Your task to perform on an android device: Search for a new hair product Image 0: 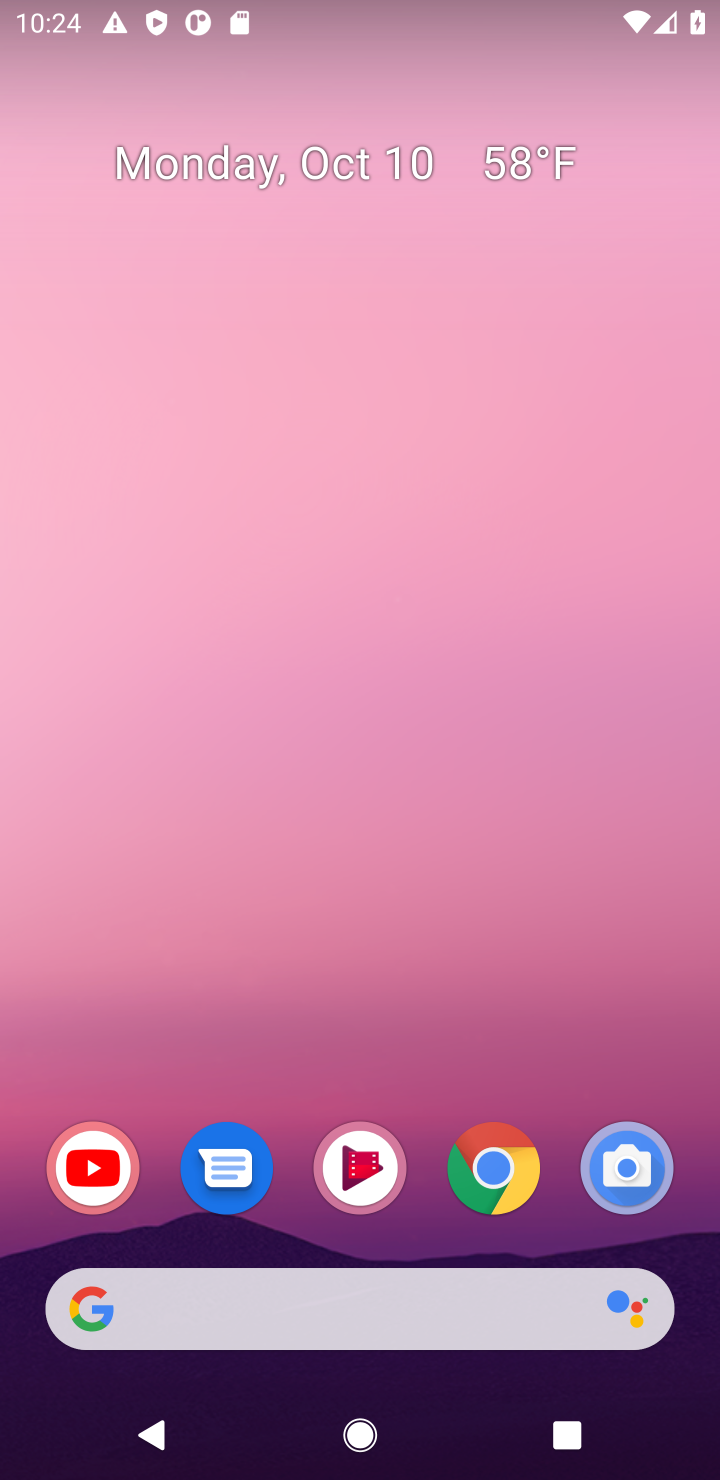
Step 0: click (344, 1324)
Your task to perform on an android device: Search for a new hair product Image 1: 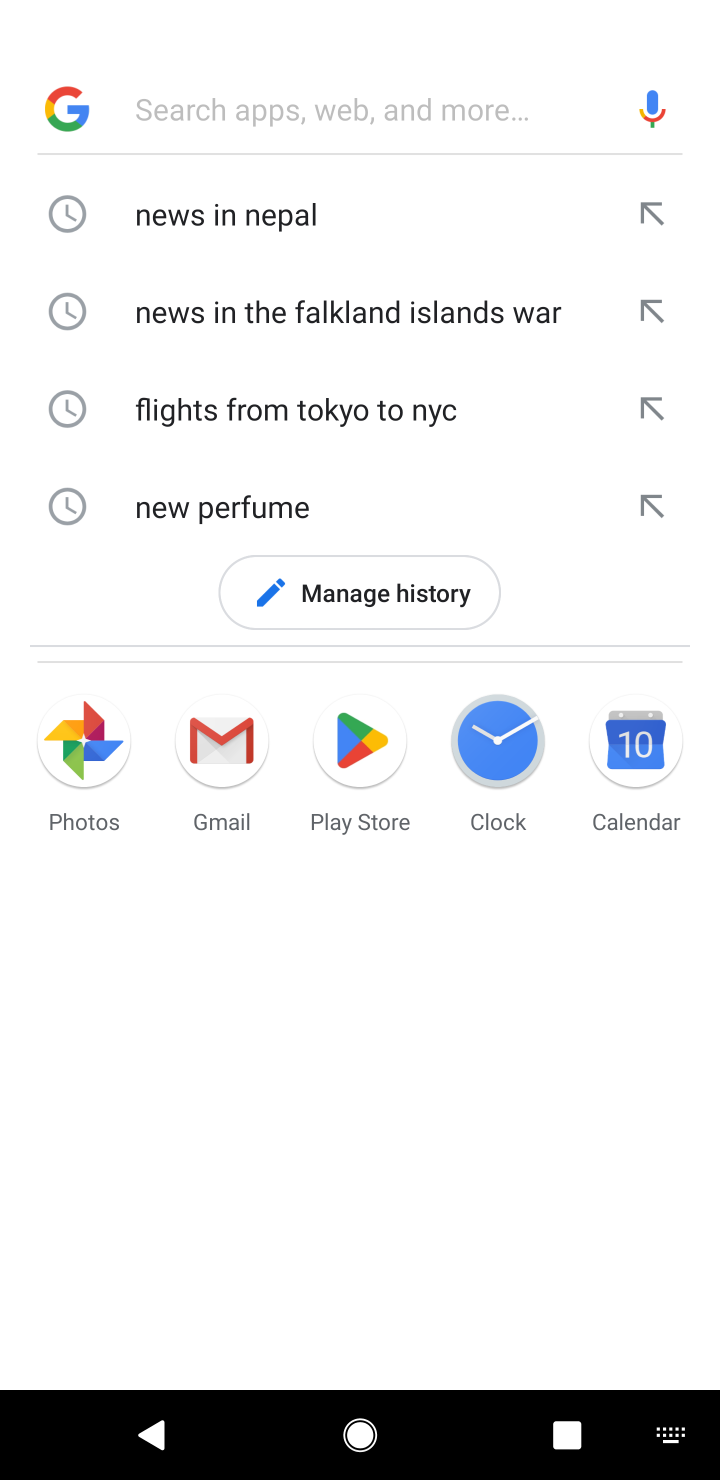
Step 1: type "a new hair product"
Your task to perform on an android device: Search for a new hair product Image 2: 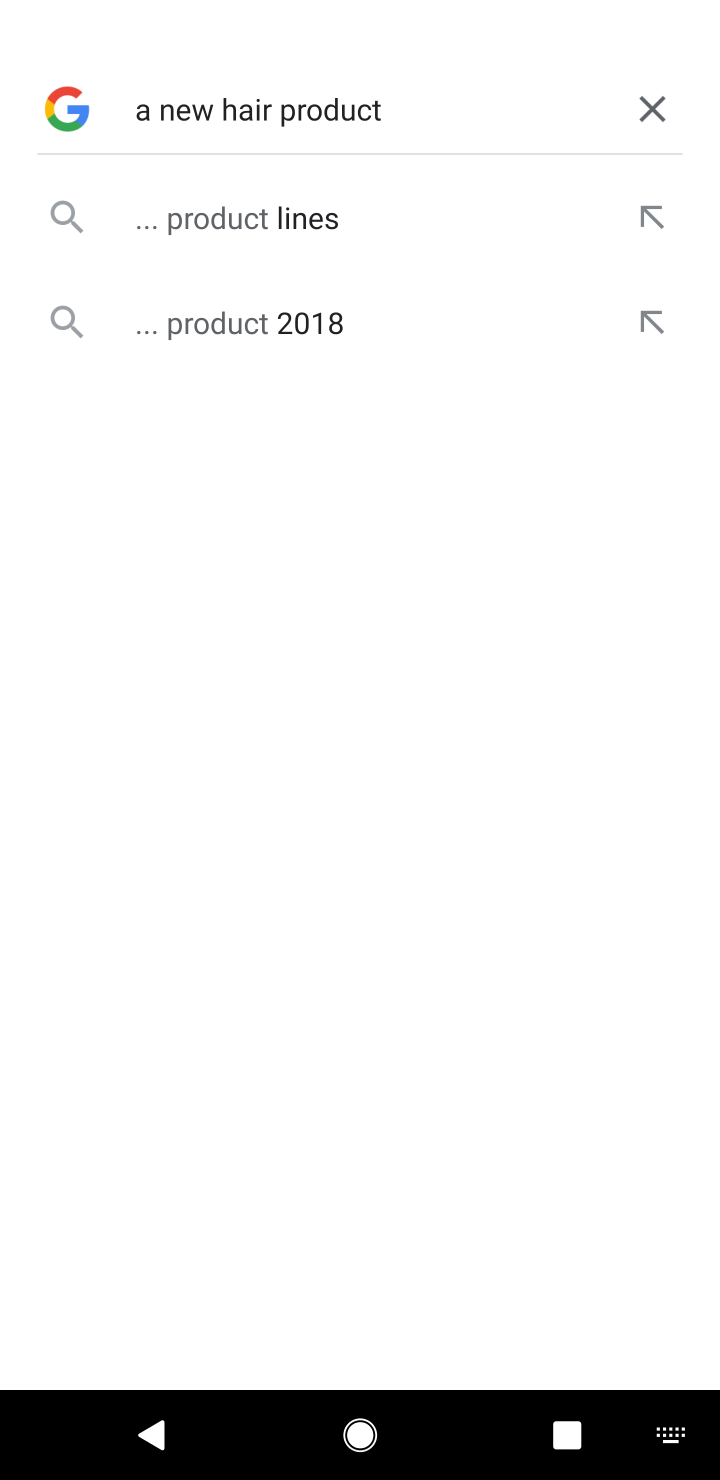
Step 2: type ""
Your task to perform on an android device: Search for a new hair product Image 3: 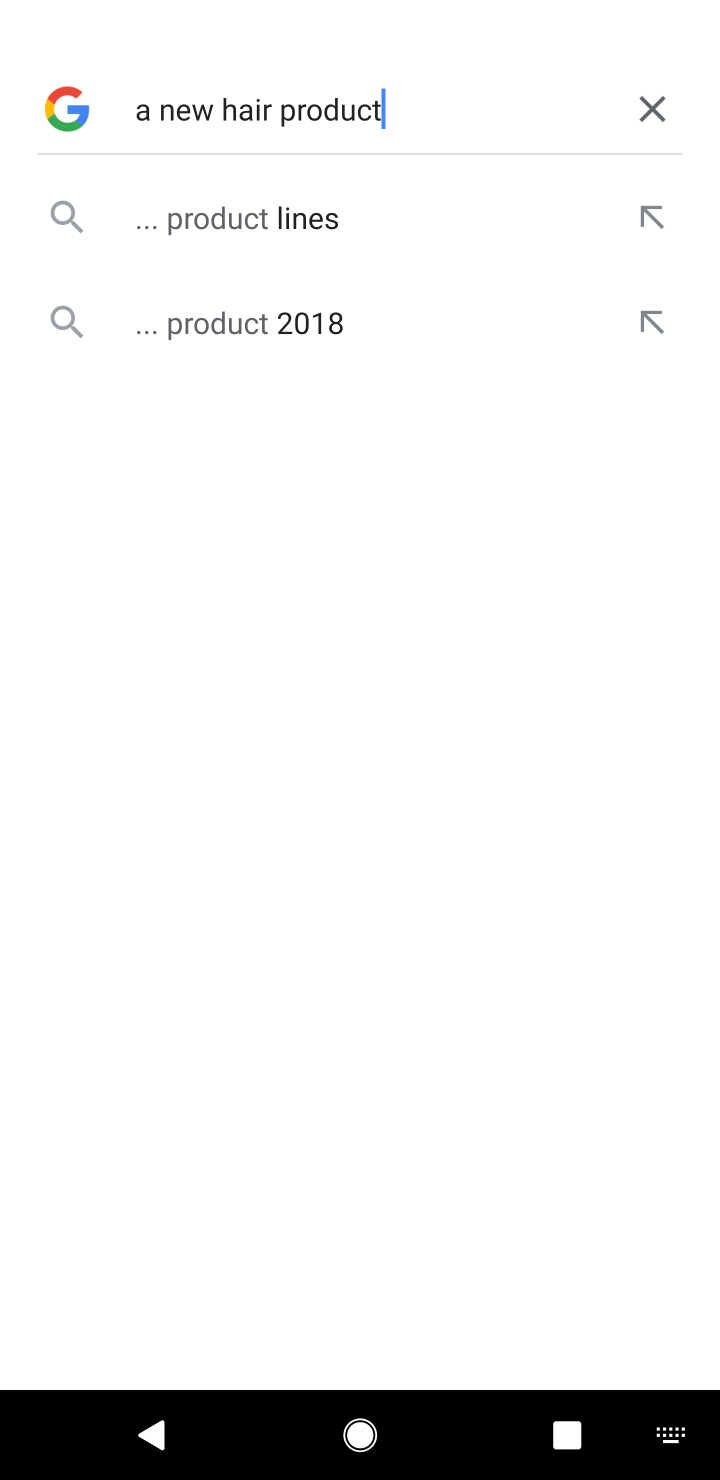
Step 3: click (249, 211)
Your task to perform on an android device: Search for a new hair product Image 4: 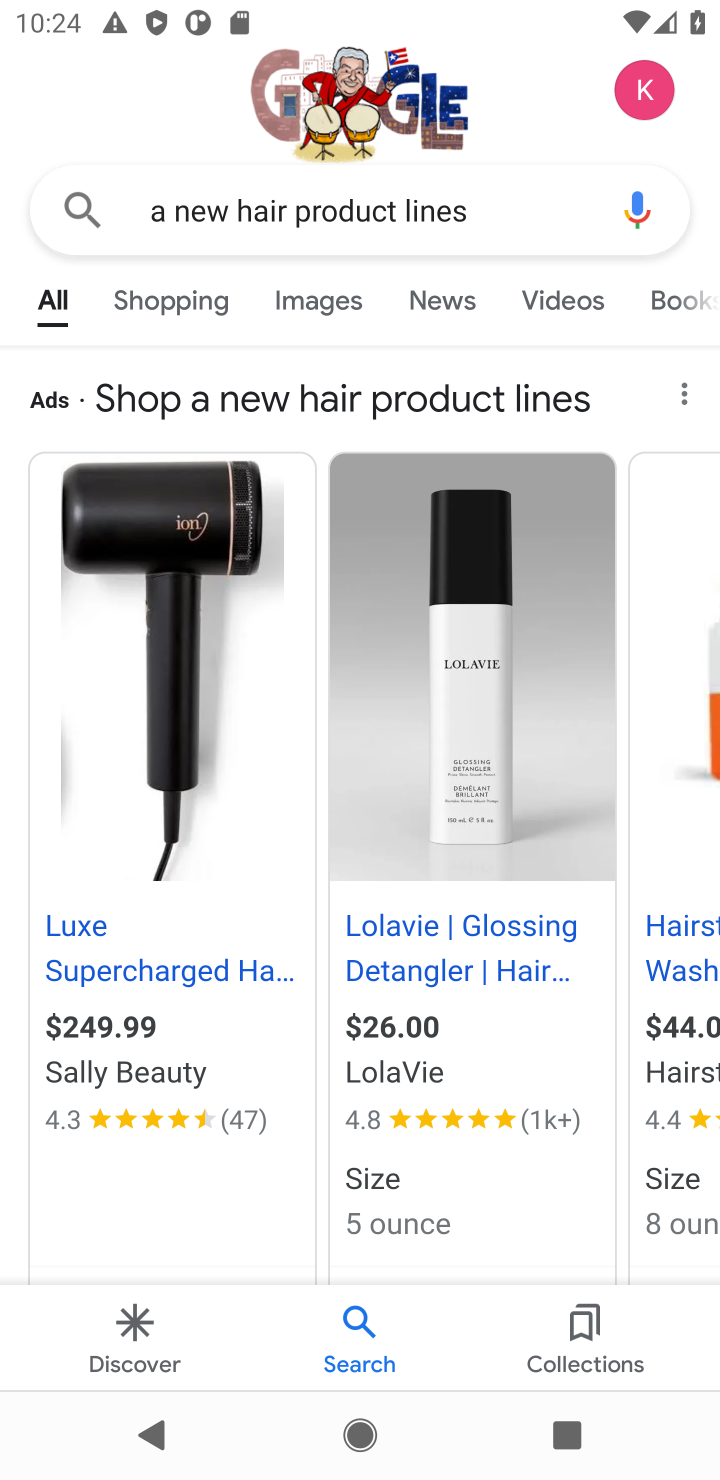
Step 4: drag from (428, 1110) to (424, 635)
Your task to perform on an android device: Search for a new hair product Image 5: 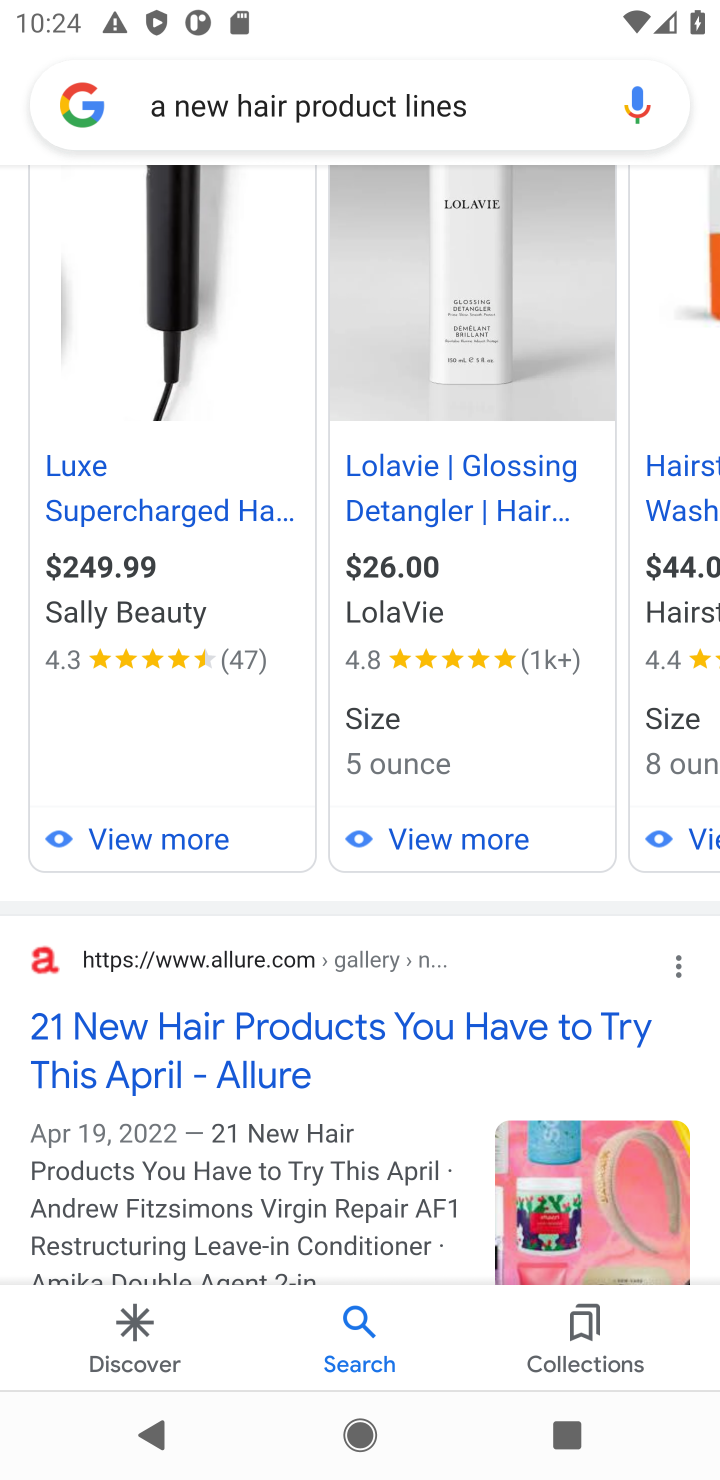
Step 5: click (441, 515)
Your task to perform on an android device: Search for a new hair product Image 6: 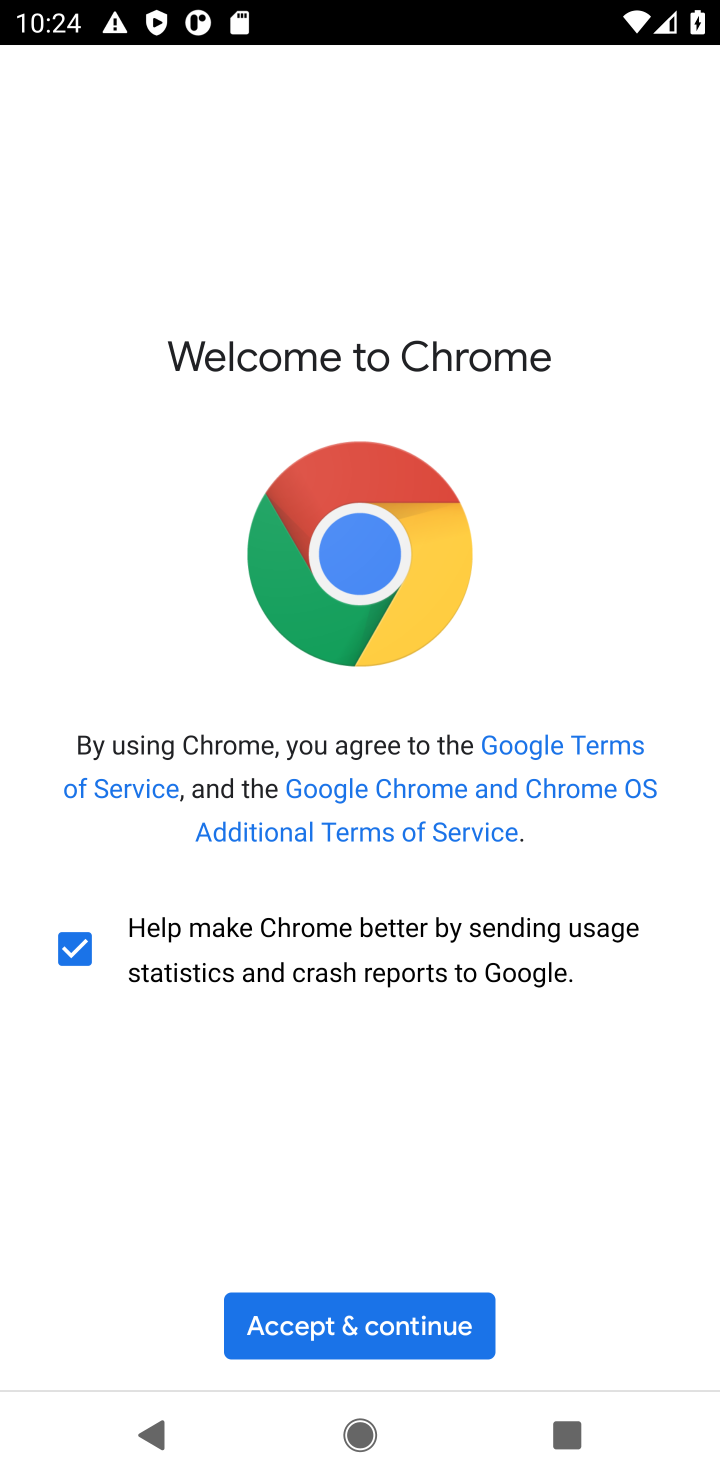
Step 6: click (463, 1330)
Your task to perform on an android device: Search for a new hair product Image 7: 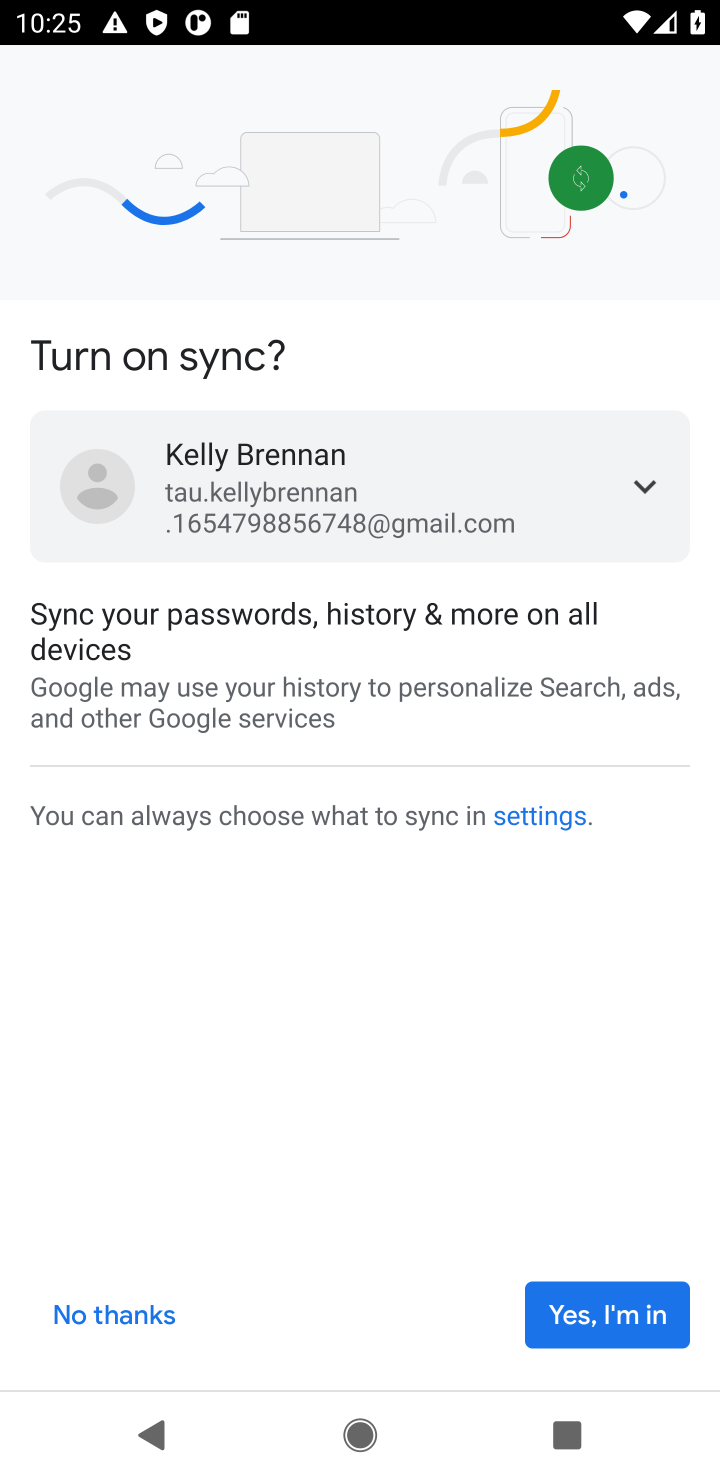
Step 7: click (586, 1329)
Your task to perform on an android device: Search for a new hair product Image 8: 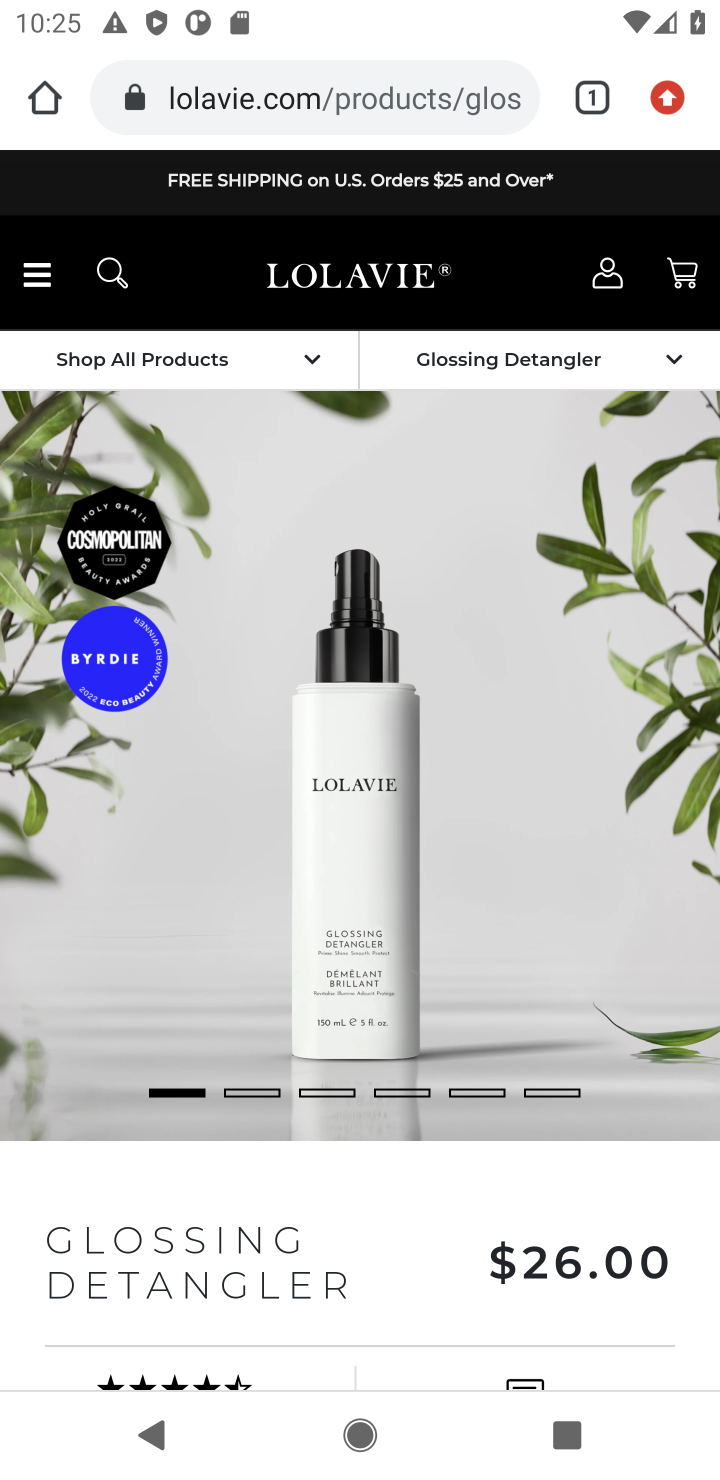
Step 8: task complete